Your task to perform on an android device: turn on showing notifications on the lock screen Image 0: 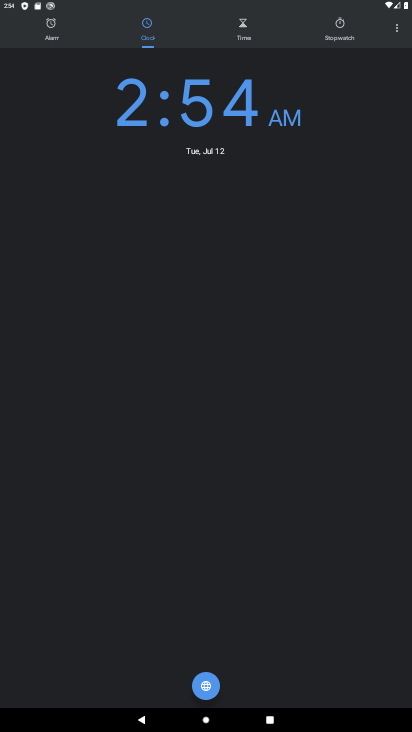
Step 0: press home button
Your task to perform on an android device: turn on showing notifications on the lock screen Image 1: 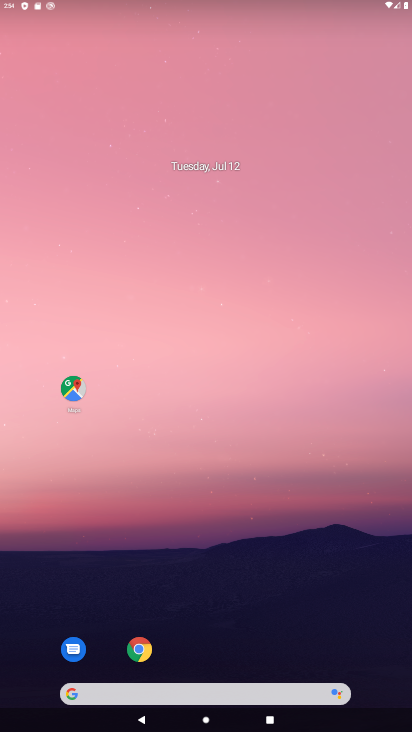
Step 1: drag from (182, 676) to (128, 249)
Your task to perform on an android device: turn on showing notifications on the lock screen Image 2: 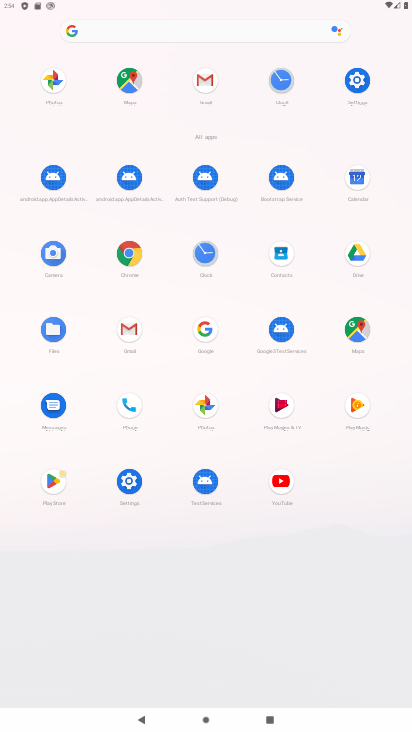
Step 2: click (362, 77)
Your task to perform on an android device: turn on showing notifications on the lock screen Image 3: 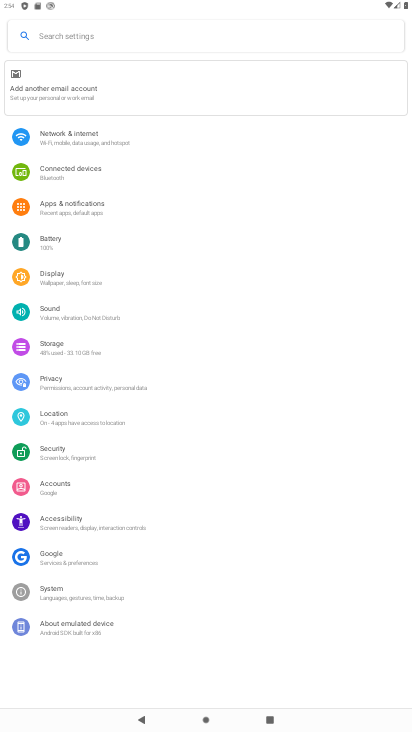
Step 3: click (68, 386)
Your task to perform on an android device: turn on showing notifications on the lock screen Image 4: 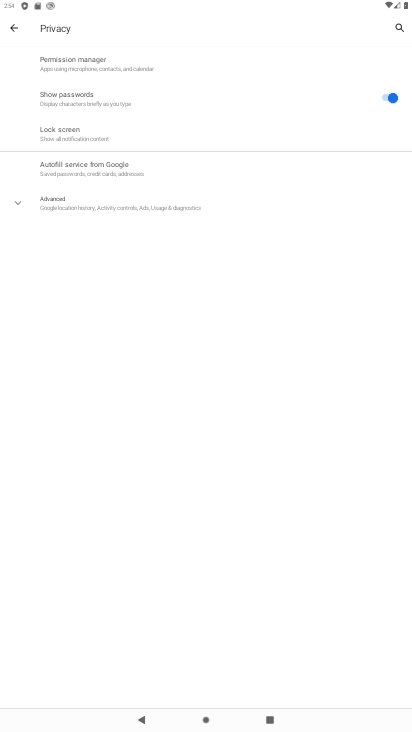
Step 4: click (56, 121)
Your task to perform on an android device: turn on showing notifications on the lock screen Image 5: 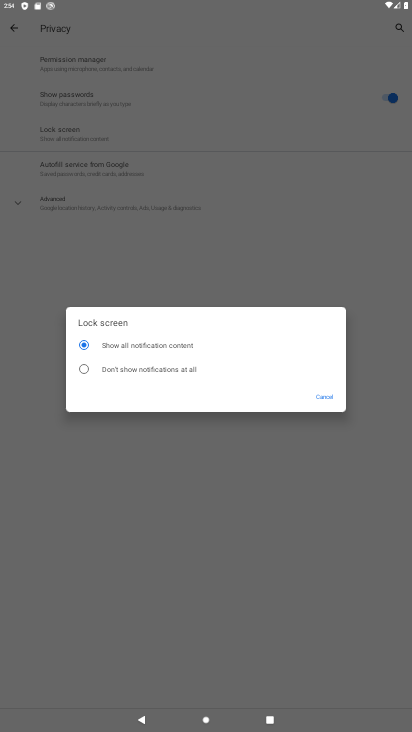
Step 5: task complete